Your task to perform on an android device: turn off improve location accuracy Image 0: 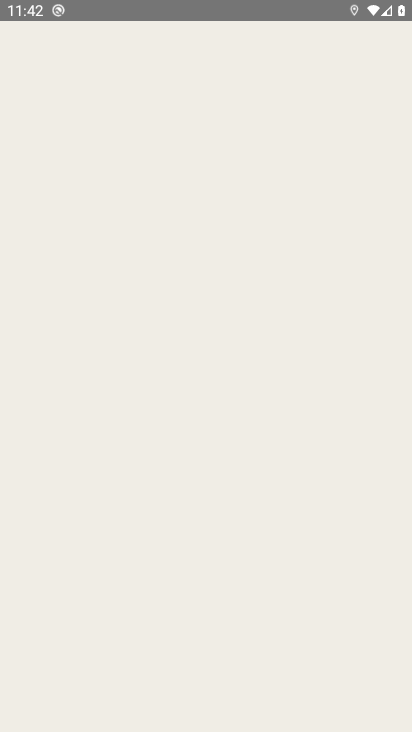
Step 0: press home button
Your task to perform on an android device: turn off improve location accuracy Image 1: 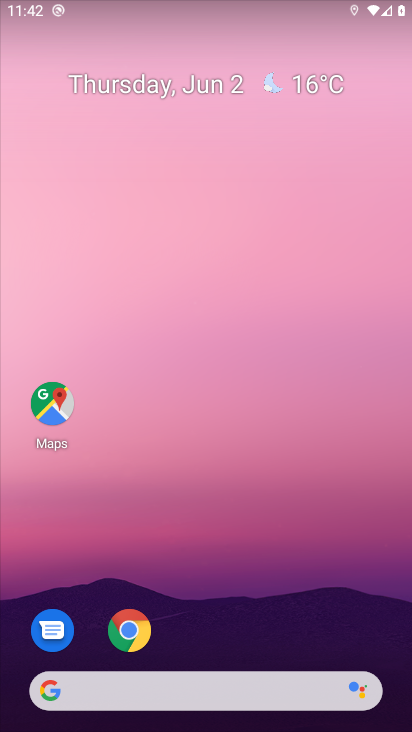
Step 1: drag from (225, 611) to (218, 1)
Your task to perform on an android device: turn off improve location accuracy Image 2: 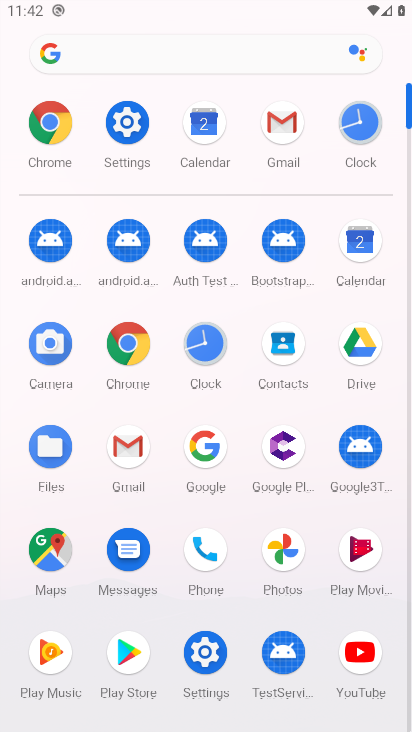
Step 2: click (137, 143)
Your task to perform on an android device: turn off improve location accuracy Image 3: 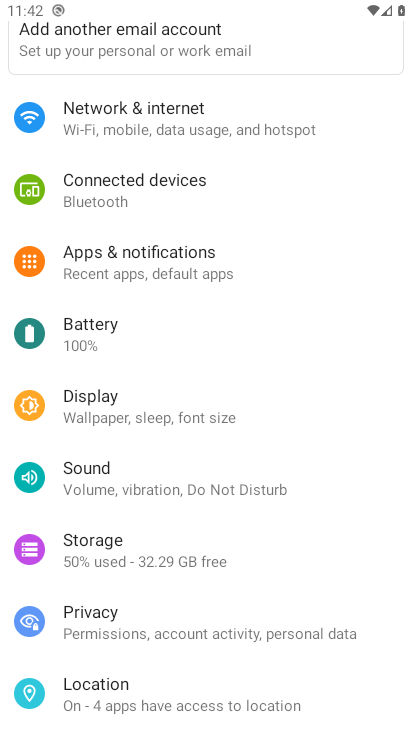
Step 3: click (150, 693)
Your task to perform on an android device: turn off improve location accuracy Image 4: 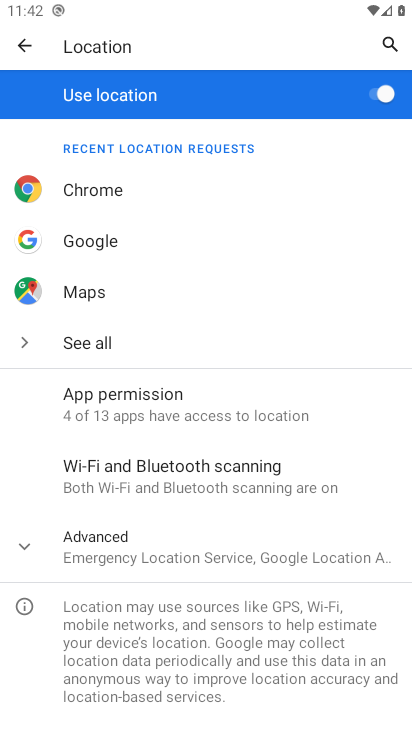
Step 4: click (135, 540)
Your task to perform on an android device: turn off improve location accuracy Image 5: 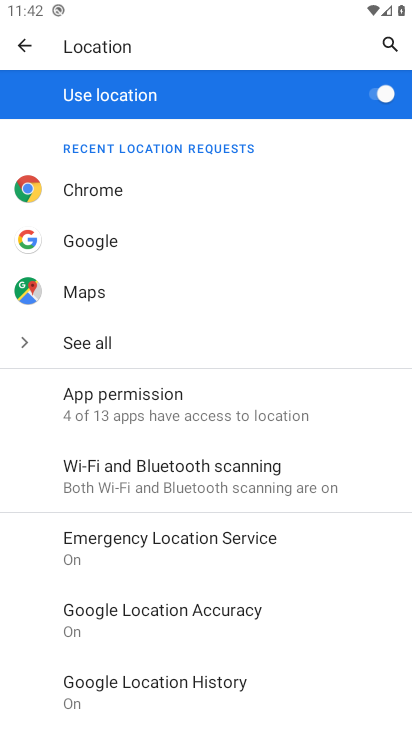
Step 5: click (192, 614)
Your task to perform on an android device: turn off improve location accuracy Image 6: 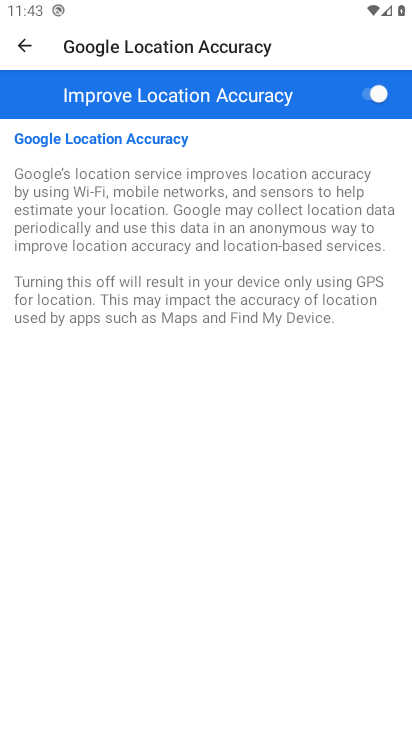
Step 6: click (357, 97)
Your task to perform on an android device: turn off improve location accuracy Image 7: 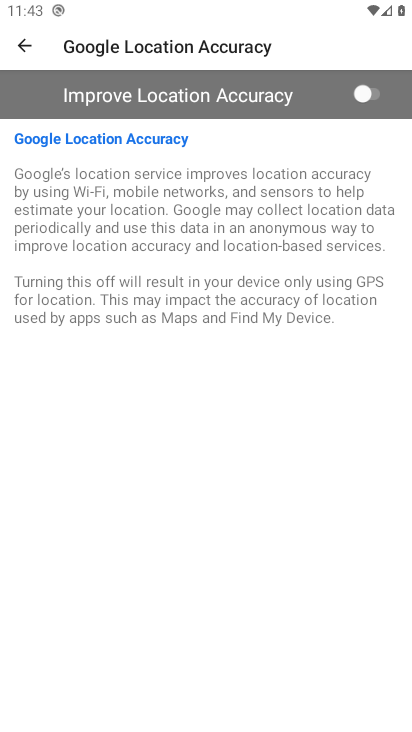
Step 7: task complete